Your task to perform on an android device: Open the web browser Image 0: 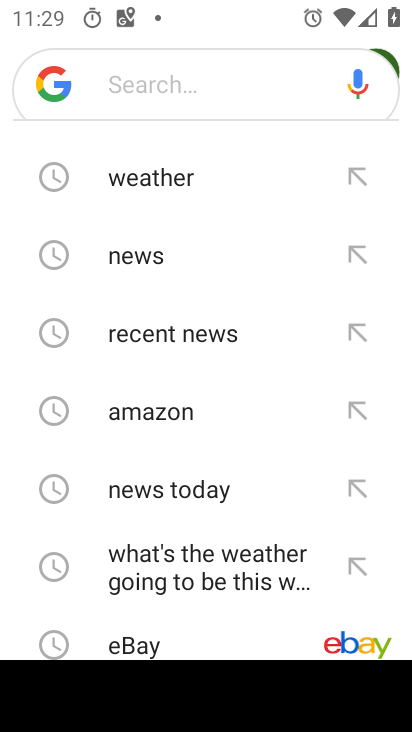
Step 0: press home button
Your task to perform on an android device: Open the web browser Image 1: 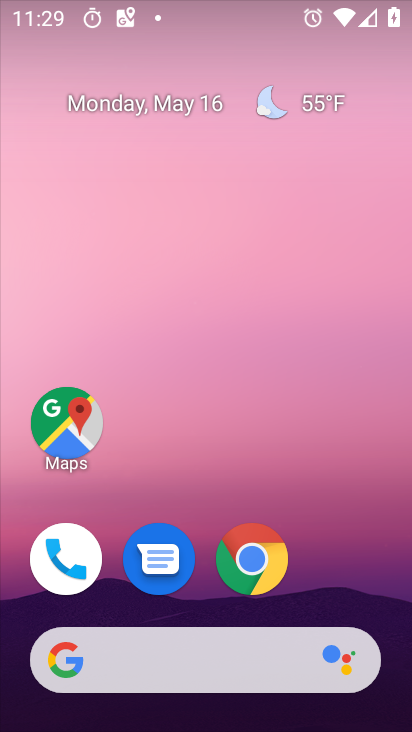
Step 1: click (249, 563)
Your task to perform on an android device: Open the web browser Image 2: 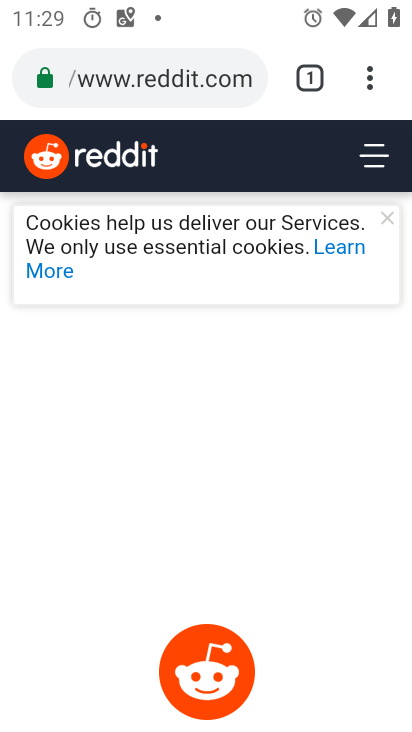
Step 2: task complete